Your task to perform on an android device: change your default location settings in chrome Image 0: 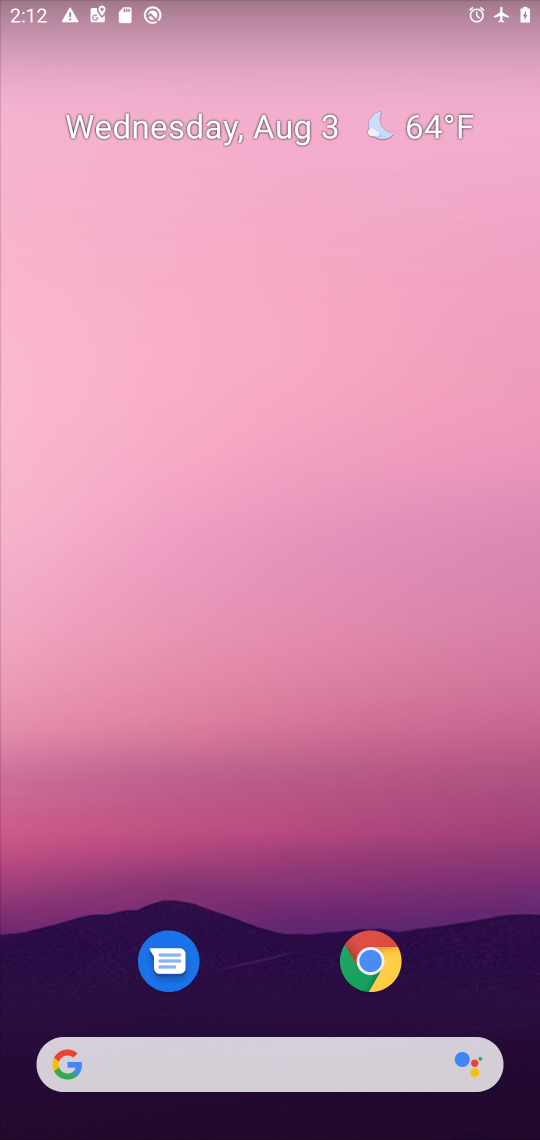
Step 0: click (374, 970)
Your task to perform on an android device: change your default location settings in chrome Image 1: 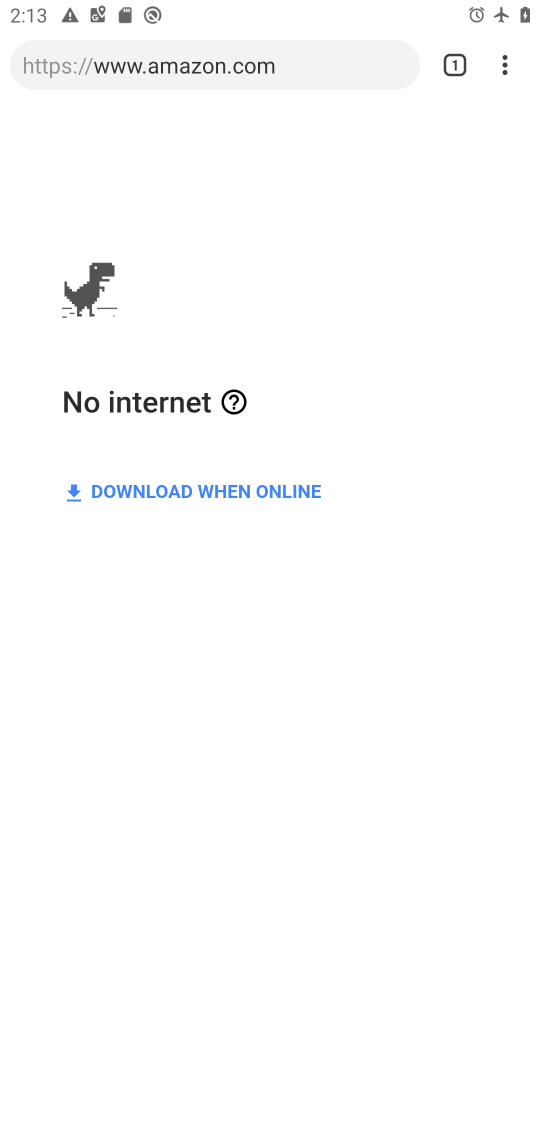
Step 1: drag from (506, 68) to (284, 725)
Your task to perform on an android device: change your default location settings in chrome Image 2: 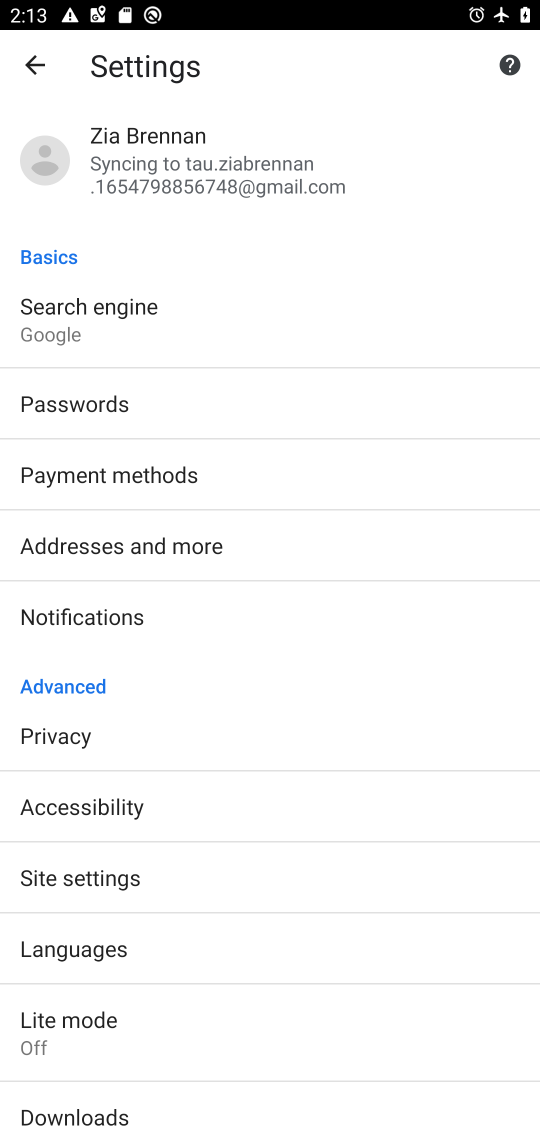
Step 2: click (71, 884)
Your task to perform on an android device: change your default location settings in chrome Image 3: 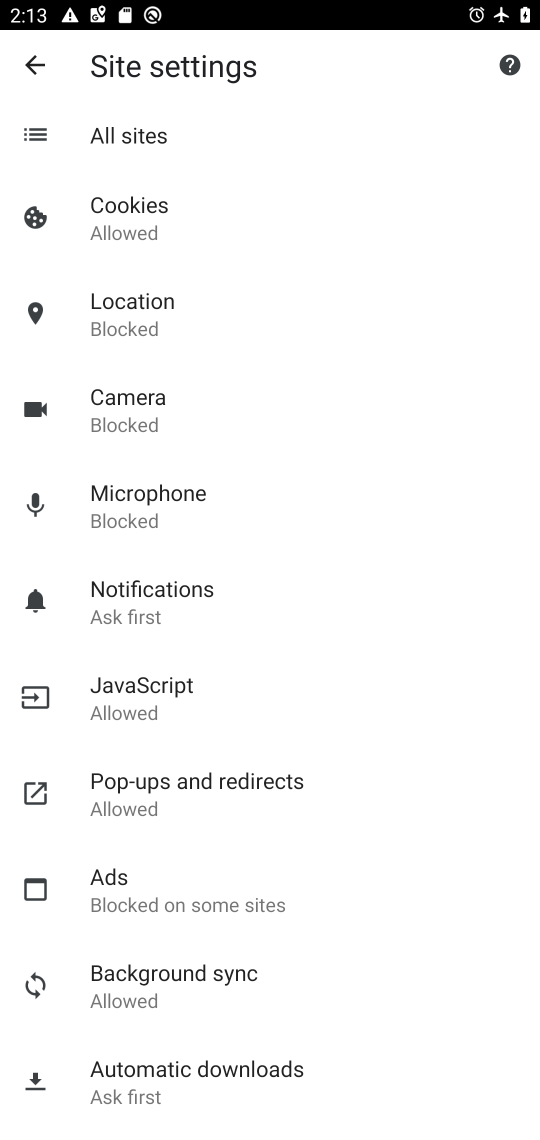
Step 3: click (113, 331)
Your task to perform on an android device: change your default location settings in chrome Image 4: 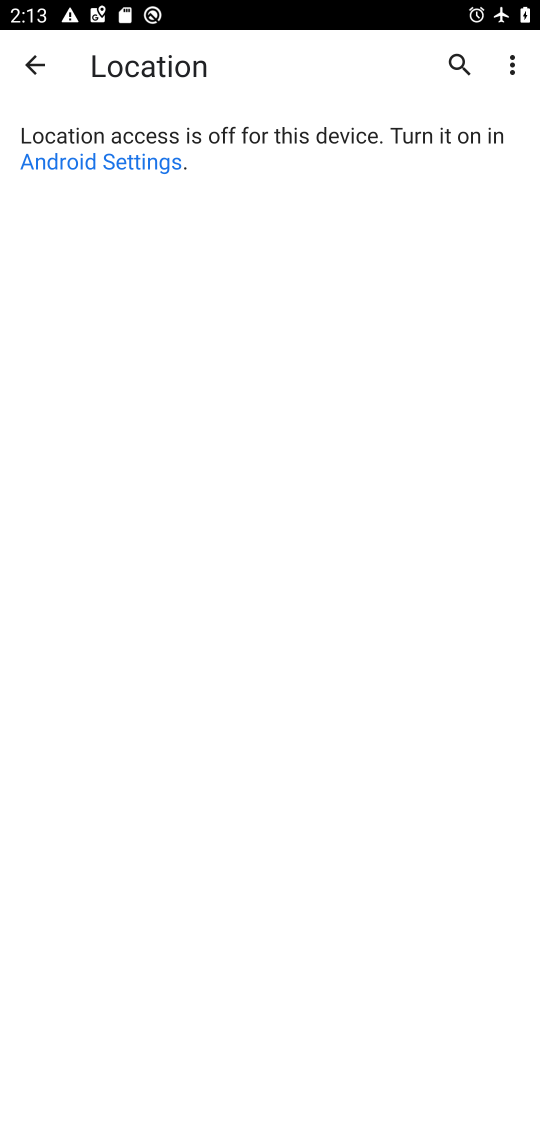
Step 4: click (84, 165)
Your task to perform on an android device: change your default location settings in chrome Image 5: 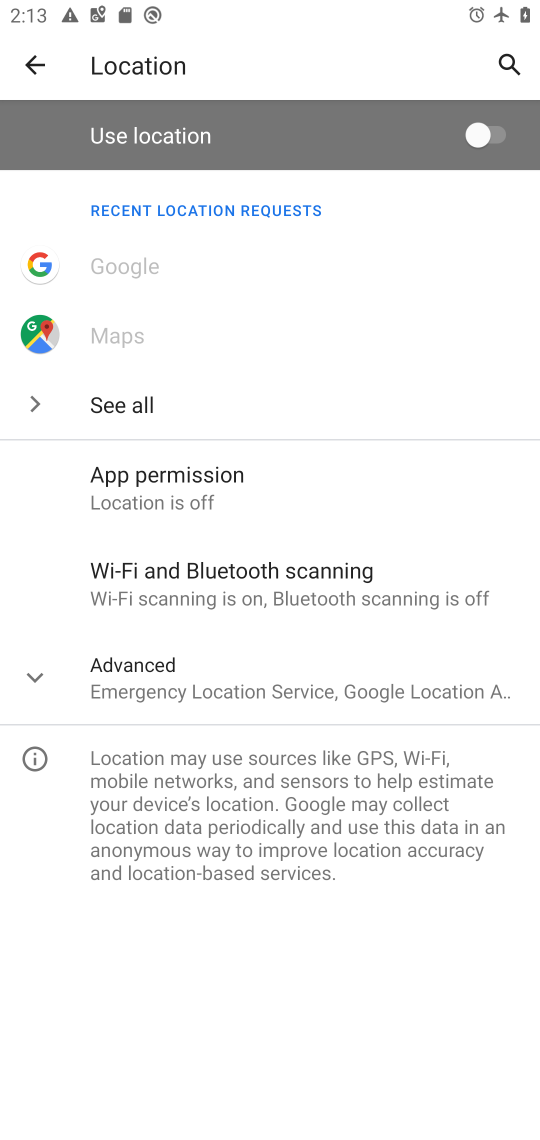
Step 5: click (477, 131)
Your task to perform on an android device: change your default location settings in chrome Image 6: 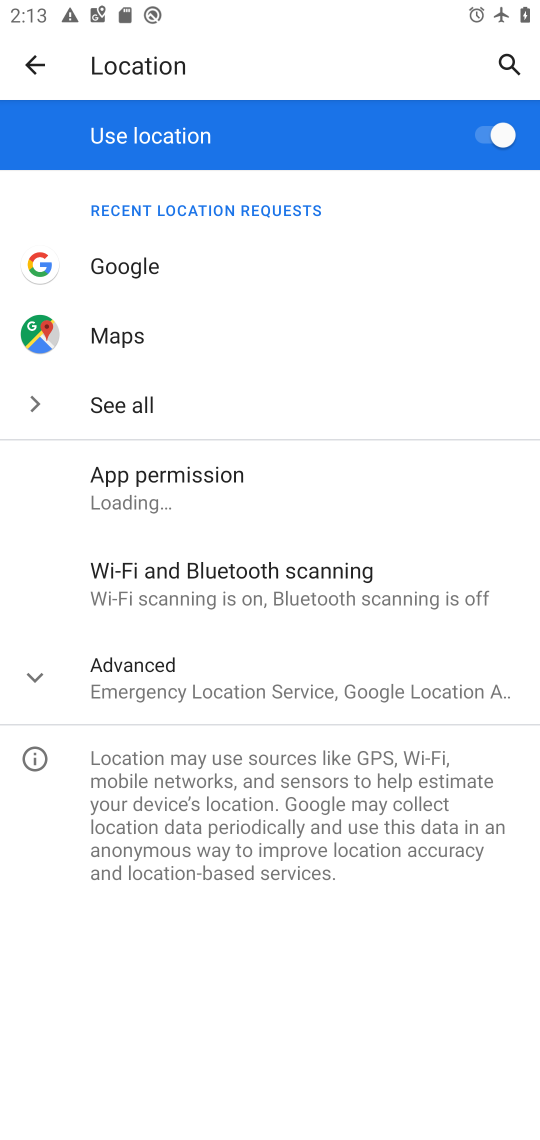
Step 6: task complete